Your task to perform on an android device: turn off smart reply in the gmail app Image 0: 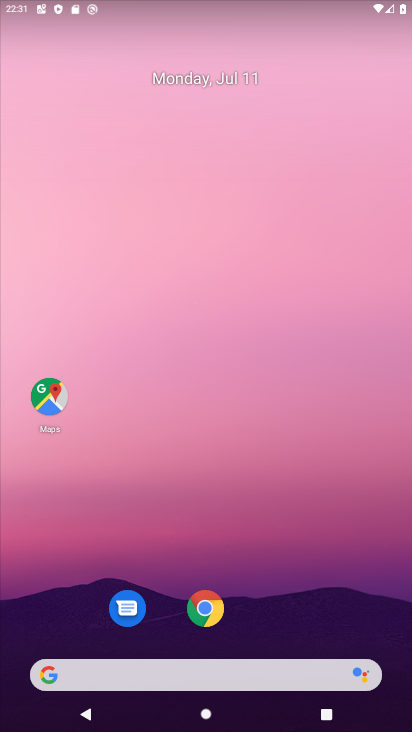
Step 0: drag from (32, 698) to (246, 54)
Your task to perform on an android device: turn off smart reply in the gmail app Image 1: 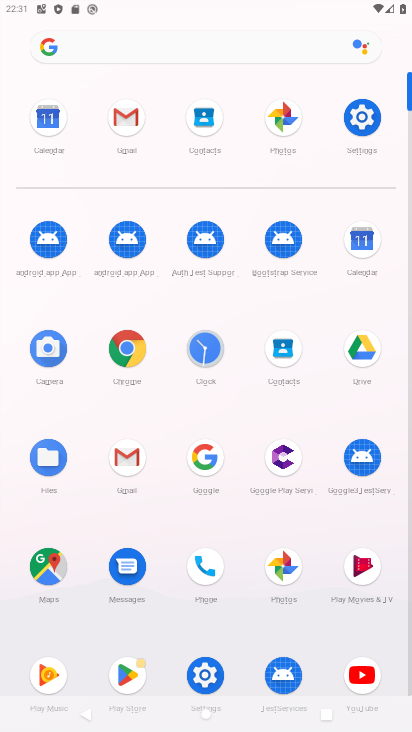
Step 1: click (120, 467)
Your task to perform on an android device: turn off smart reply in the gmail app Image 2: 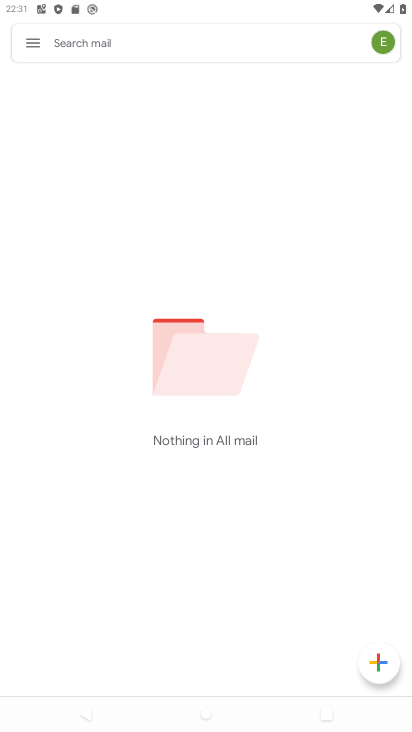
Step 2: click (30, 44)
Your task to perform on an android device: turn off smart reply in the gmail app Image 3: 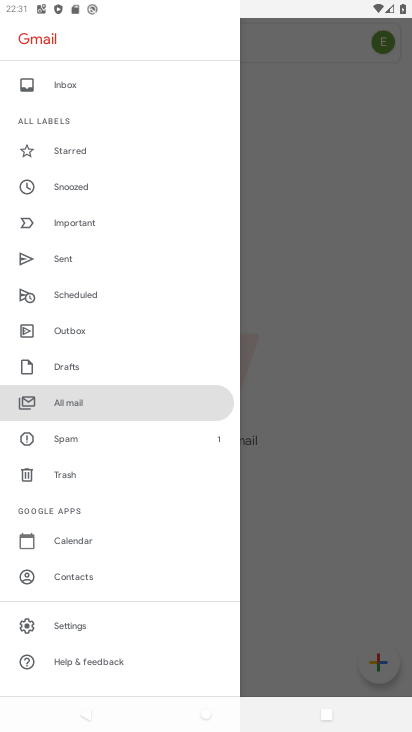
Step 3: click (61, 625)
Your task to perform on an android device: turn off smart reply in the gmail app Image 4: 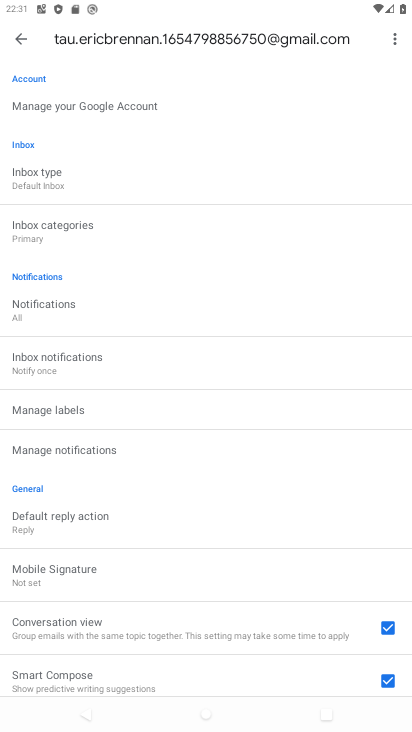
Step 4: click (57, 184)
Your task to perform on an android device: turn off smart reply in the gmail app Image 5: 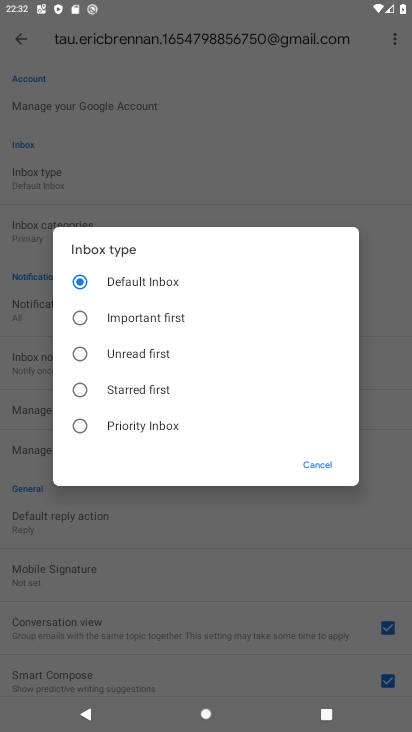
Step 5: click (200, 508)
Your task to perform on an android device: turn off smart reply in the gmail app Image 6: 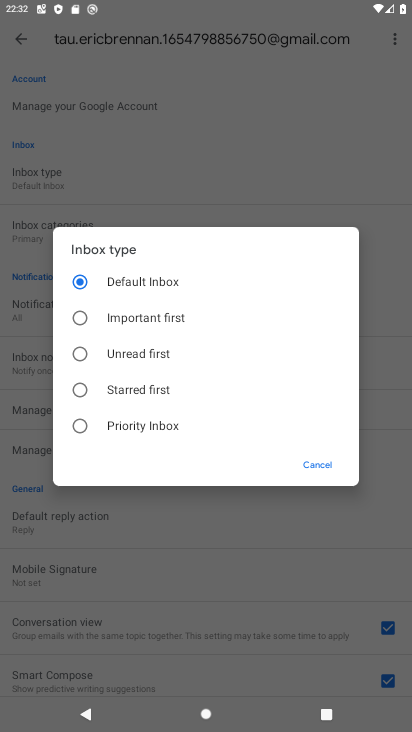
Step 6: click (311, 463)
Your task to perform on an android device: turn off smart reply in the gmail app Image 7: 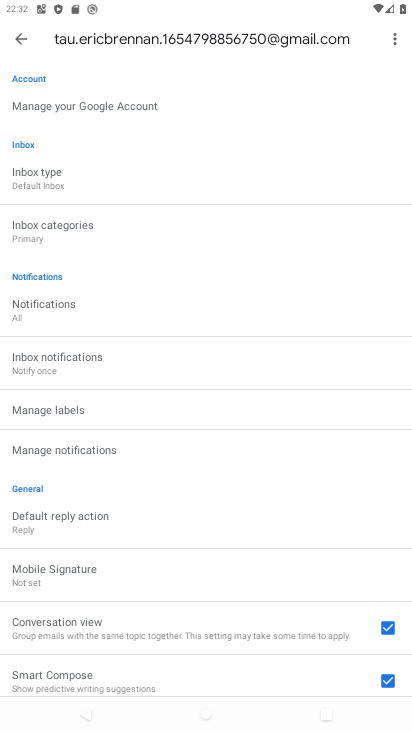
Step 7: click (47, 532)
Your task to perform on an android device: turn off smart reply in the gmail app Image 8: 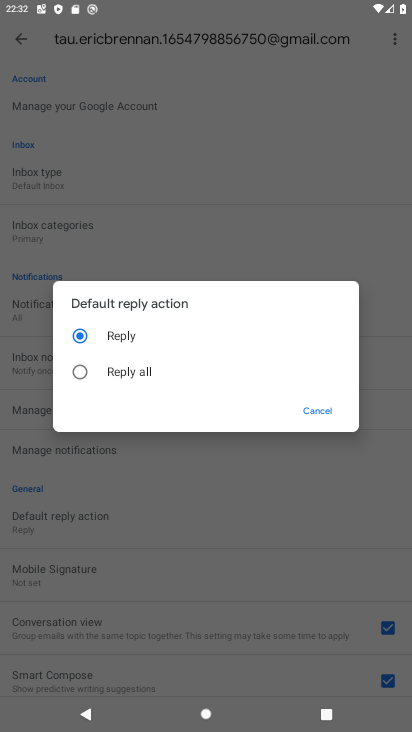
Step 8: click (303, 408)
Your task to perform on an android device: turn off smart reply in the gmail app Image 9: 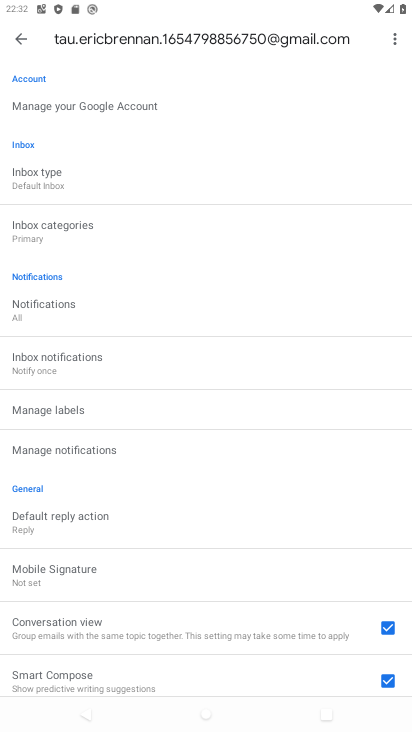
Step 9: task complete